Your task to perform on an android device: delete the emails in spam in the gmail app Image 0: 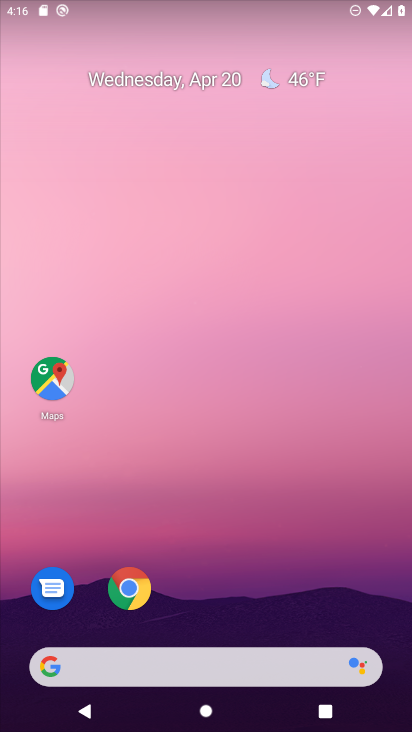
Step 0: drag from (220, 727) to (222, 40)
Your task to perform on an android device: delete the emails in spam in the gmail app Image 1: 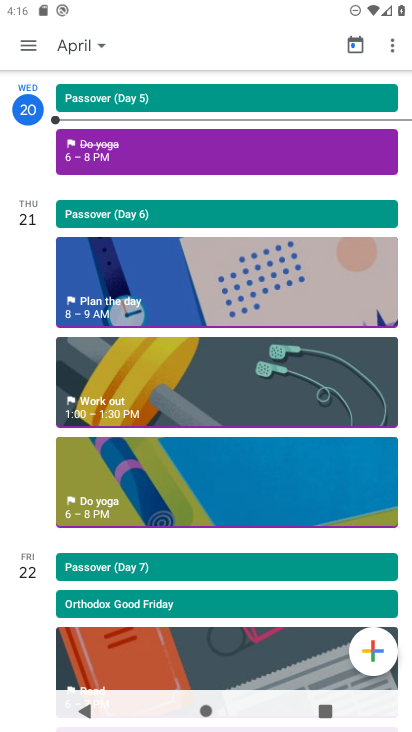
Step 1: press home button
Your task to perform on an android device: delete the emails in spam in the gmail app Image 2: 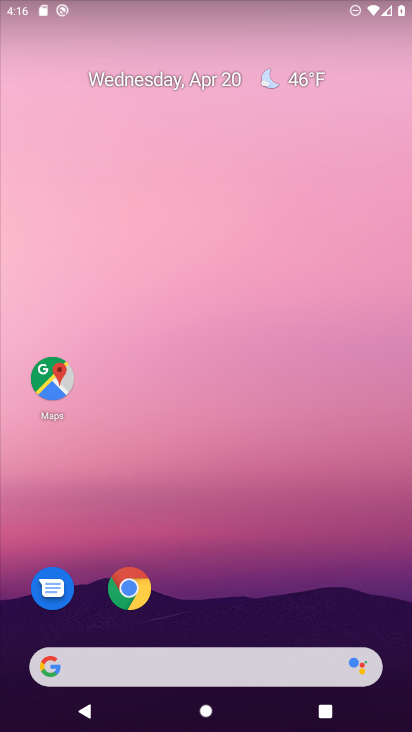
Step 2: drag from (215, 614) to (215, 72)
Your task to perform on an android device: delete the emails in spam in the gmail app Image 3: 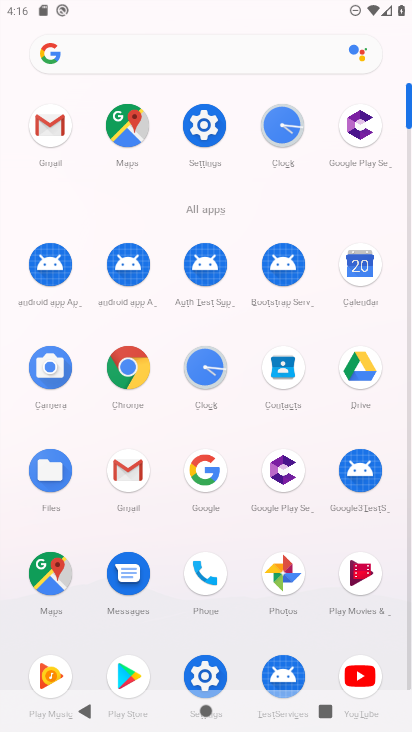
Step 3: click (127, 471)
Your task to perform on an android device: delete the emails in spam in the gmail app Image 4: 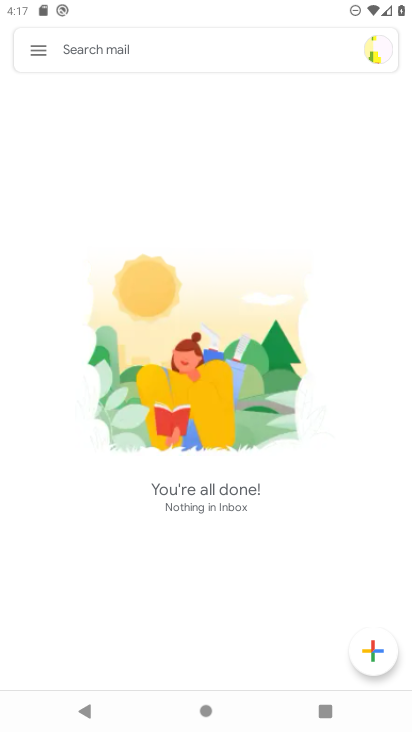
Step 4: click (39, 53)
Your task to perform on an android device: delete the emails in spam in the gmail app Image 5: 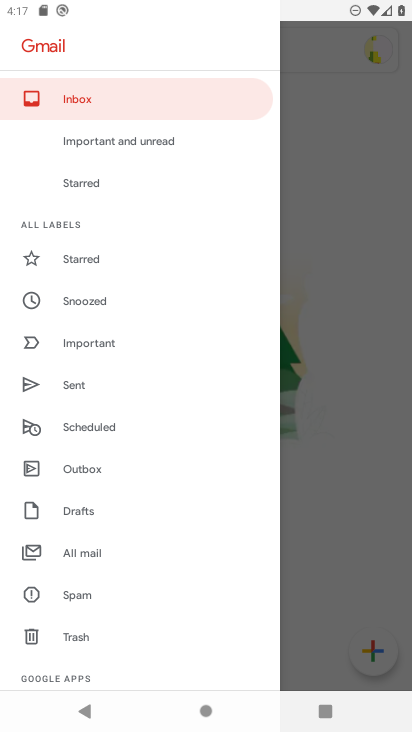
Step 5: click (79, 591)
Your task to perform on an android device: delete the emails in spam in the gmail app Image 6: 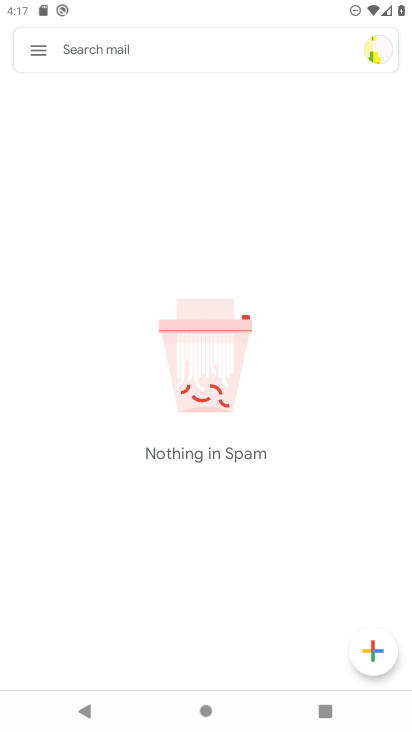
Step 6: task complete